Your task to perform on an android device: stop showing notifications on the lock screen Image 0: 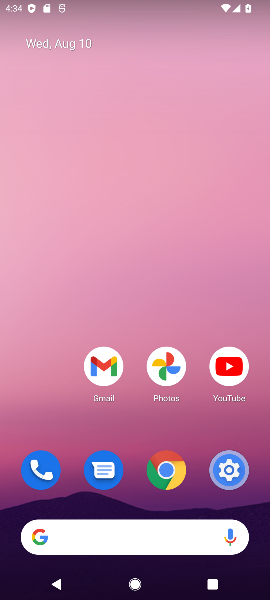
Step 0: drag from (27, 441) to (29, 35)
Your task to perform on an android device: stop showing notifications on the lock screen Image 1: 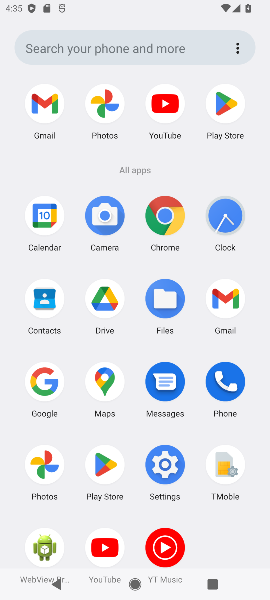
Step 1: click (176, 455)
Your task to perform on an android device: stop showing notifications on the lock screen Image 2: 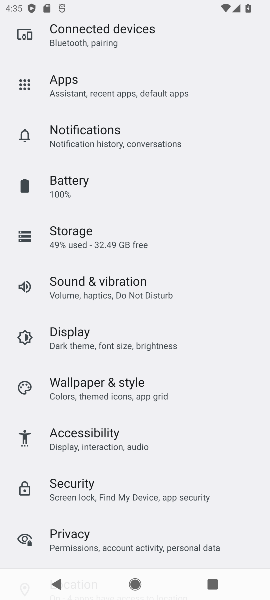
Step 2: click (147, 144)
Your task to perform on an android device: stop showing notifications on the lock screen Image 3: 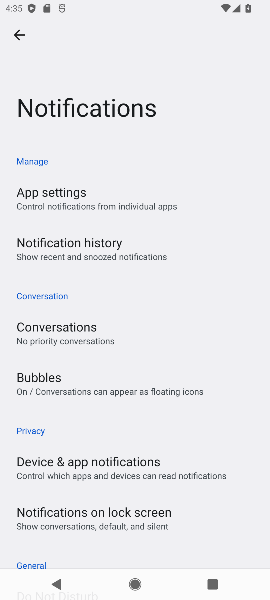
Step 3: click (120, 526)
Your task to perform on an android device: stop showing notifications on the lock screen Image 4: 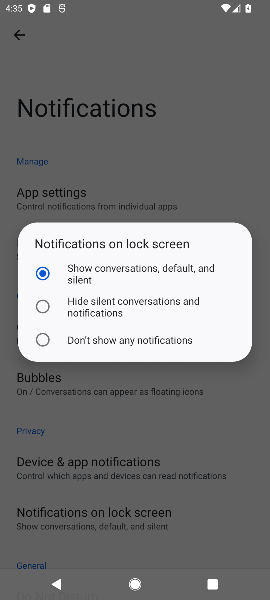
Step 4: click (165, 279)
Your task to perform on an android device: stop showing notifications on the lock screen Image 5: 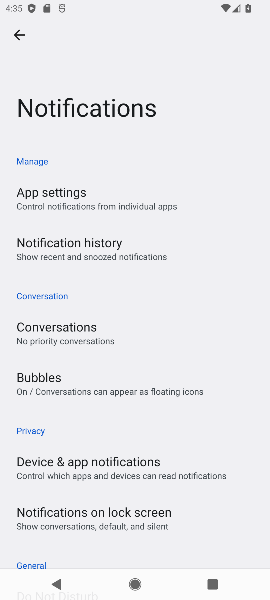
Step 5: click (113, 521)
Your task to perform on an android device: stop showing notifications on the lock screen Image 6: 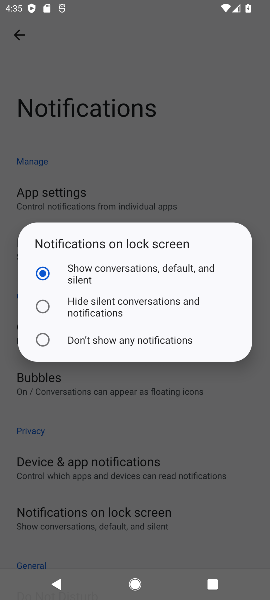
Step 6: click (121, 340)
Your task to perform on an android device: stop showing notifications on the lock screen Image 7: 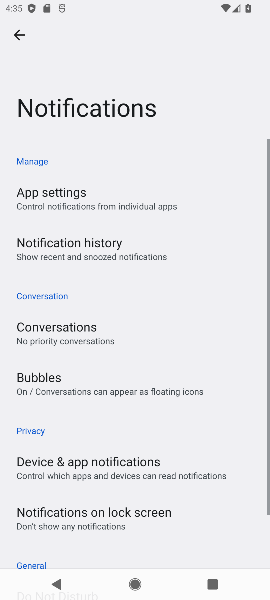
Step 7: task complete